Your task to perform on an android device: Go to Wikipedia Image 0: 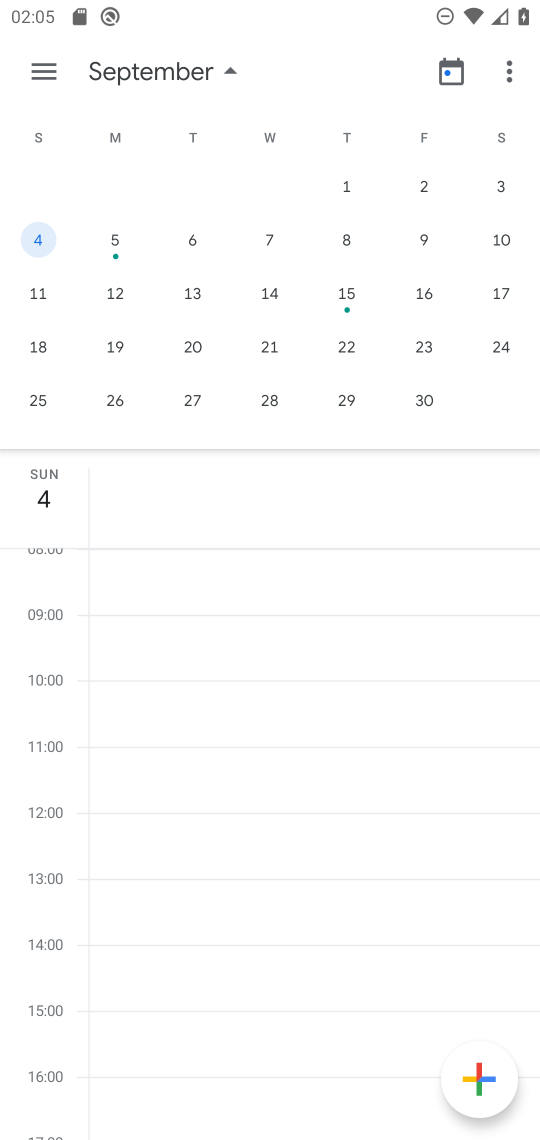
Step 0: press home button
Your task to perform on an android device: Go to Wikipedia Image 1: 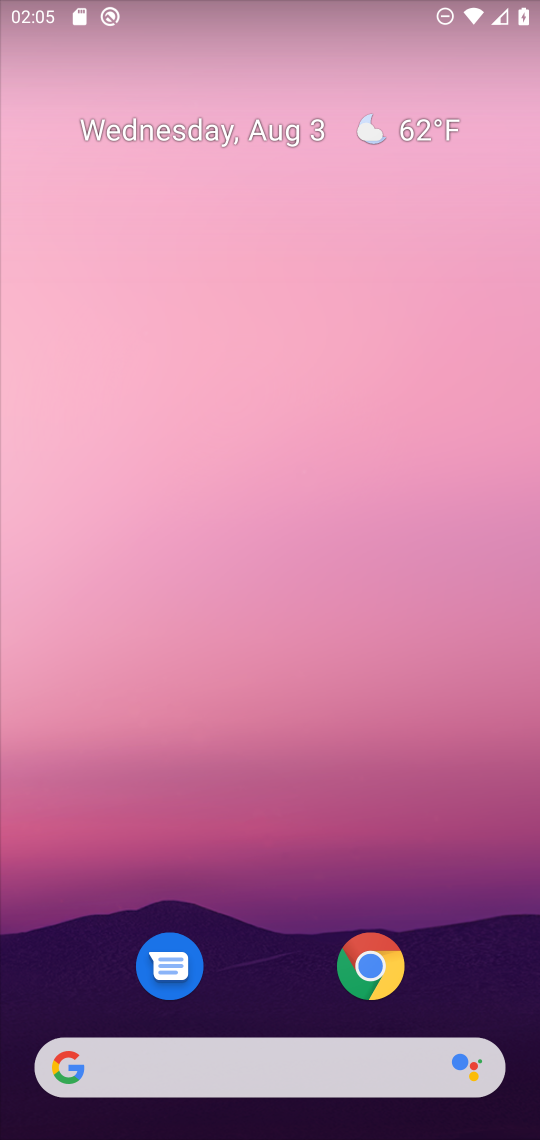
Step 1: click (356, 964)
Your task to perform on an android device: Go to Wikipedia Image 2: 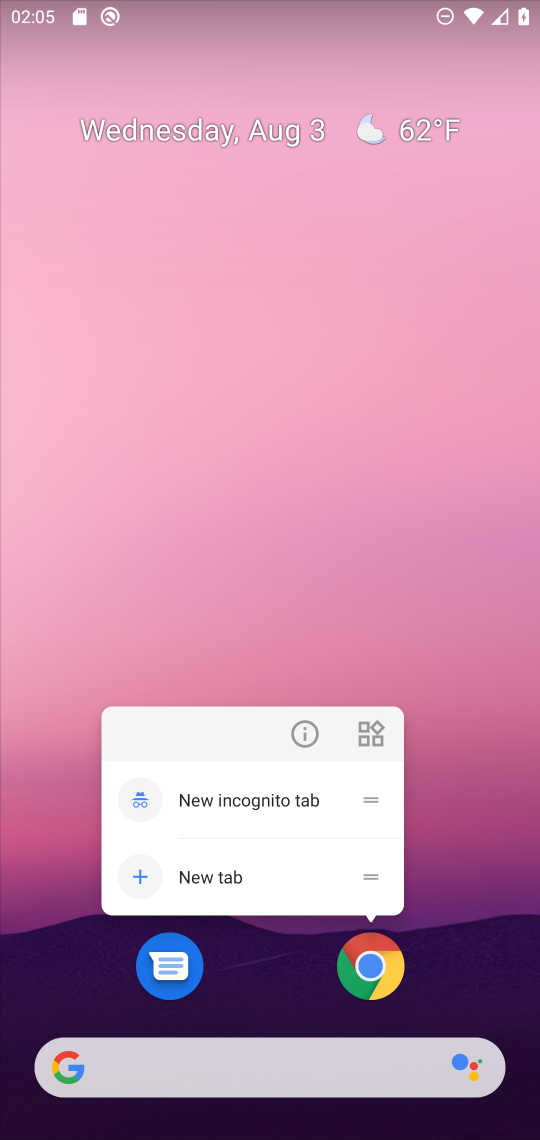
Step 2: click (387, 964)
Your task to perform on an android device: Go to Wikipedia Image 3: 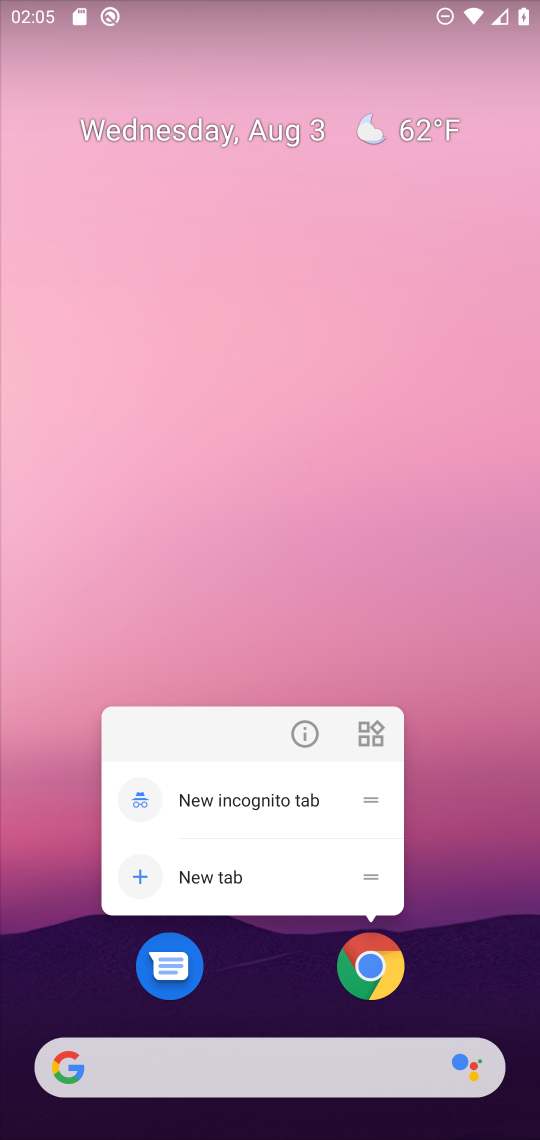
Step 3: click (388, 964)
Your task to perform on an android device: Go to Wikipedia Image 4: 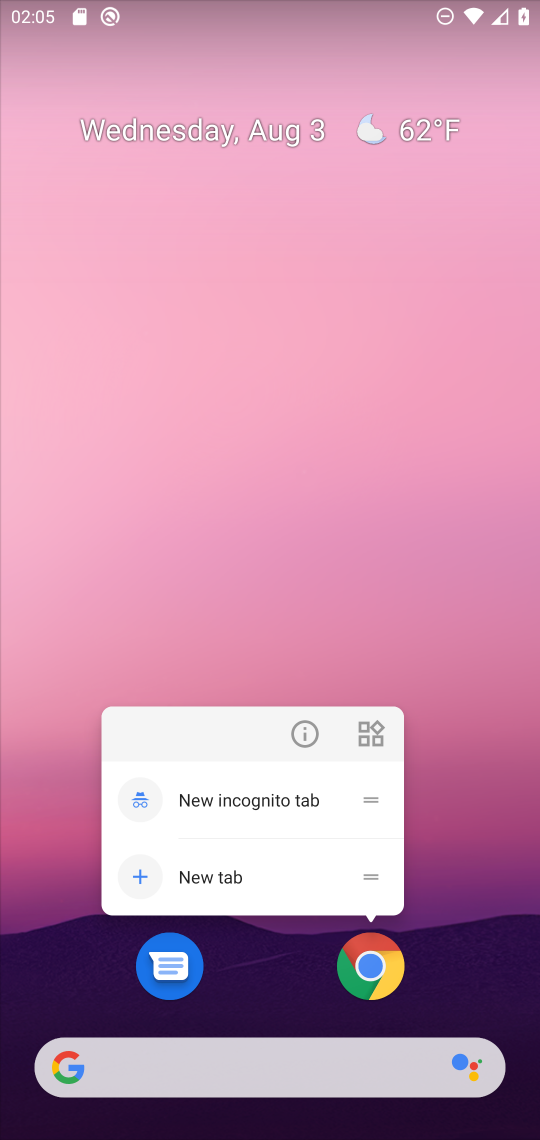
Step 4: click (388, 964)
Your task to perform on an android device: Go to Wikipedia Image 5: 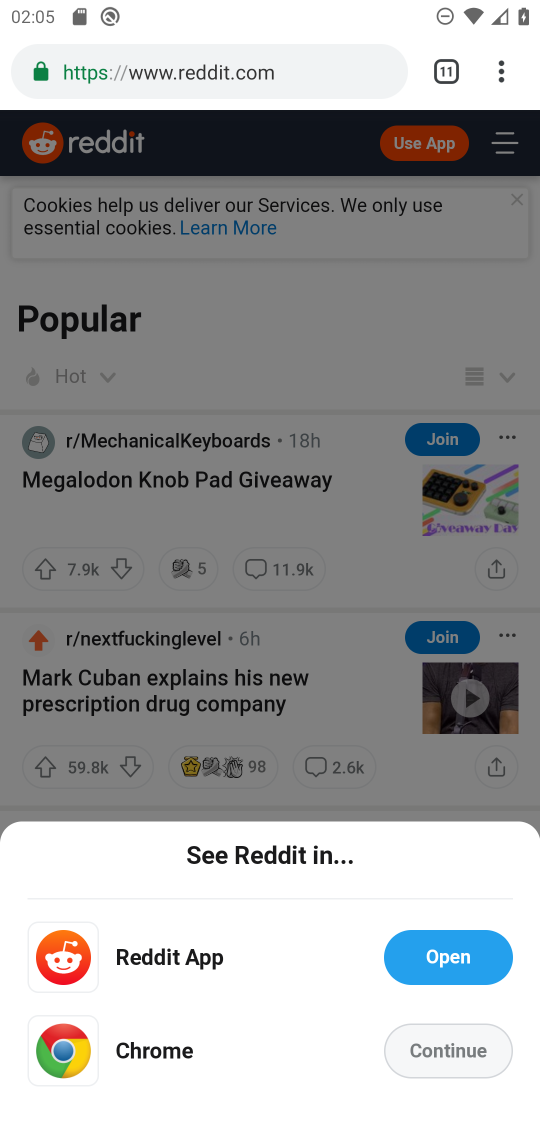
Step 5: click (442, 1039)
Your task to perform on an android device: Go to Wikipedia Image 6: 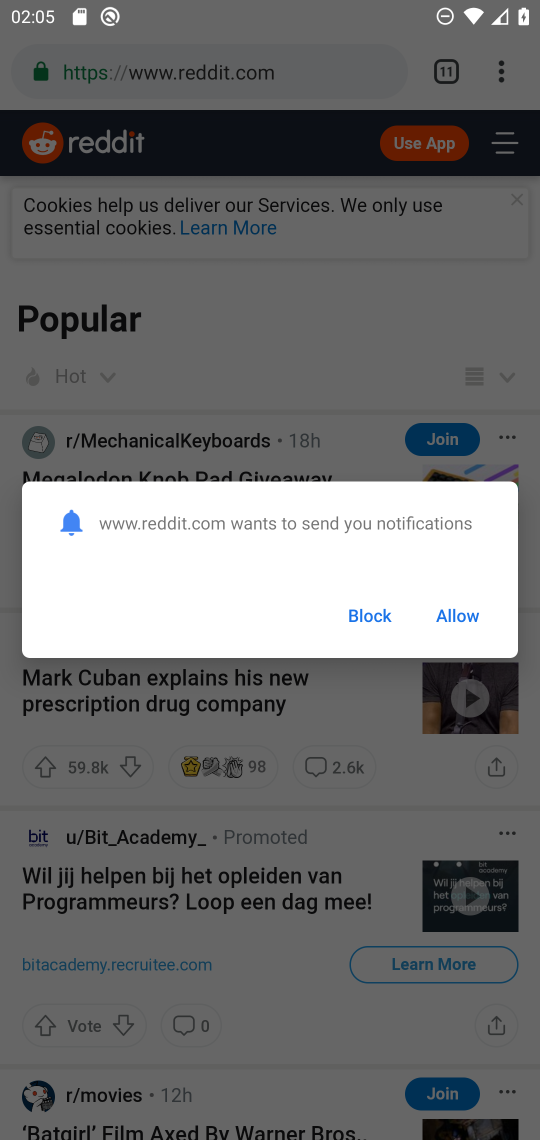
Step 6: click (431, 607)
Your task to perform on an android device: Go to Wikipedia Image 7: 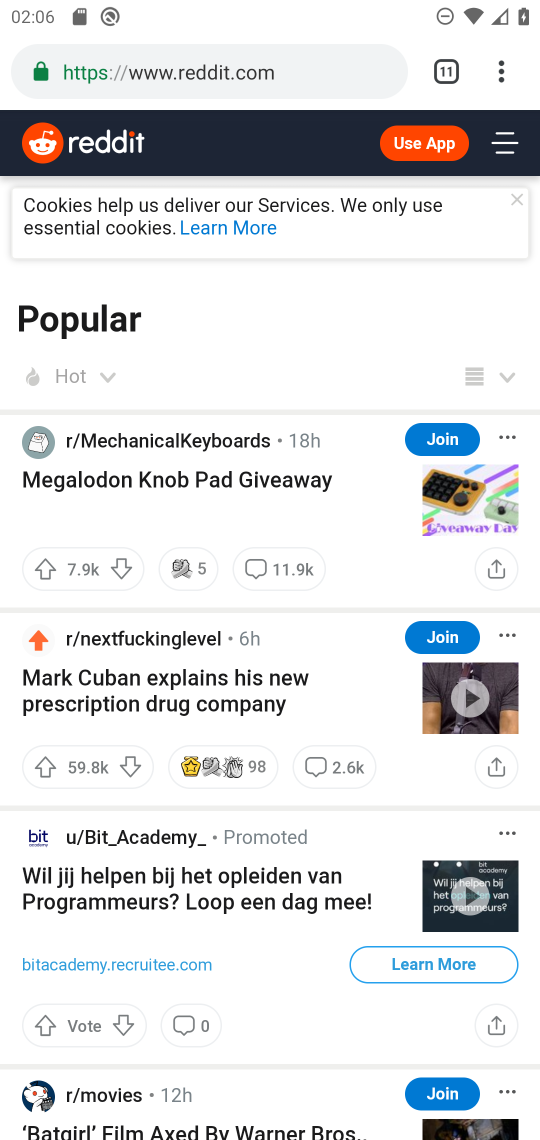
Step 7: click (450, 76)
Your task to perform on an android device: Go to Wikipedia Image 8: 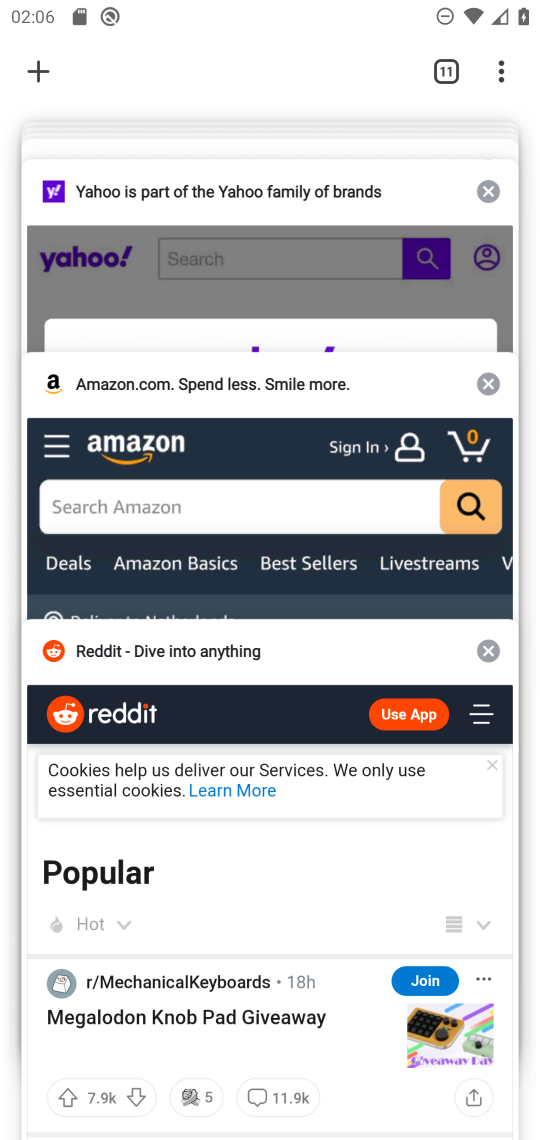
Step 8: click (36, 78)
Your task to perform on an android device: Go to Wikipedia Image 9: 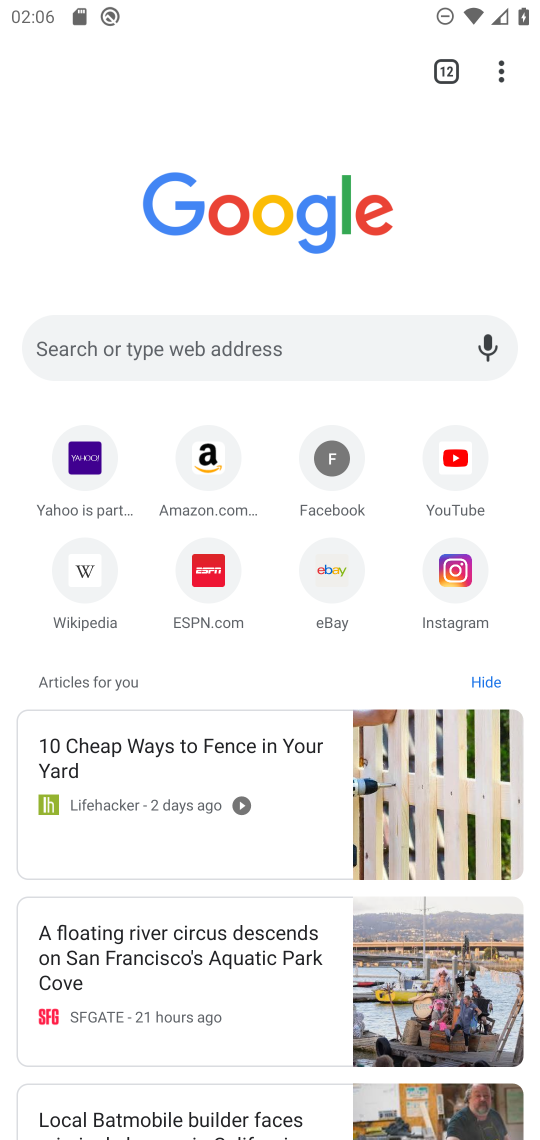
Step 9: click (75, 592)
Your task to perform on an android device: Go to Wikipedia Image 10: 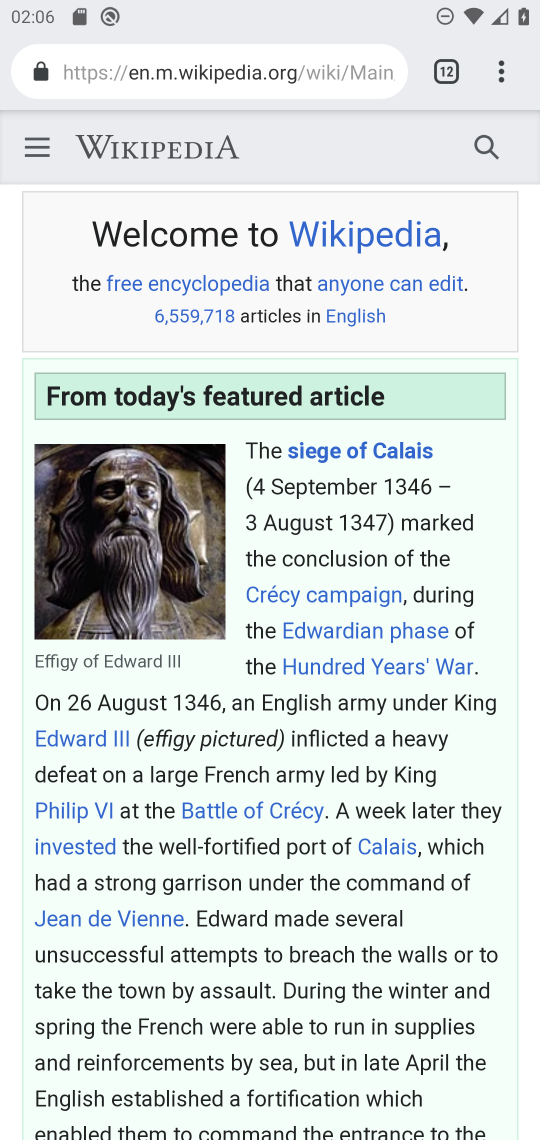
Step 10: task complete